Your task to perform on an android device: allow cookies in the chrome app Image 0: 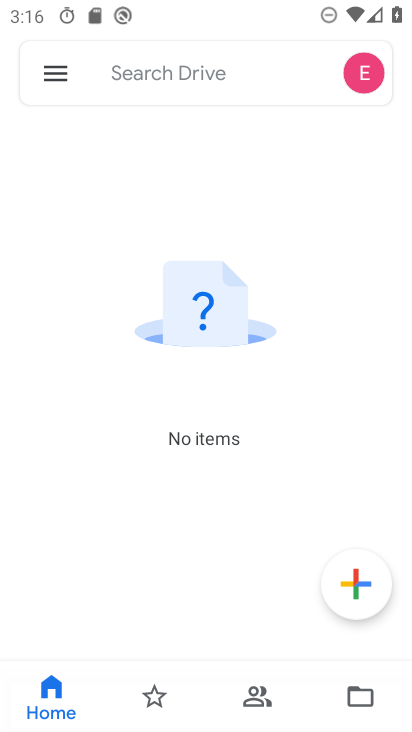
Step 0: press home button
Your task to perform on an android device: allow cookies in the chrome app Image 1: 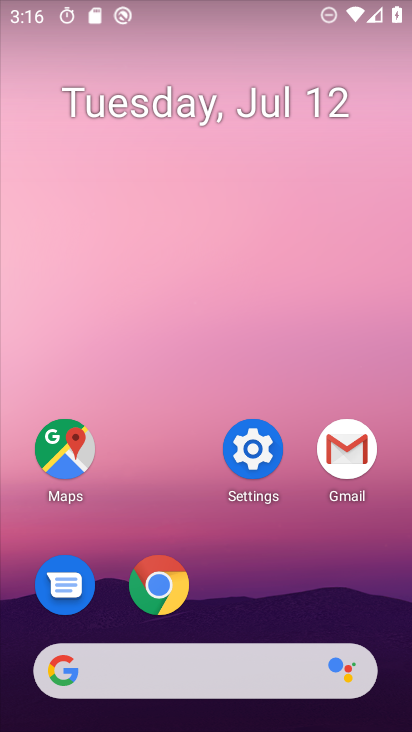
Step 1: click (143, 591)
Your task to perform on an android device: allow cookies in the chrome app Image 2: 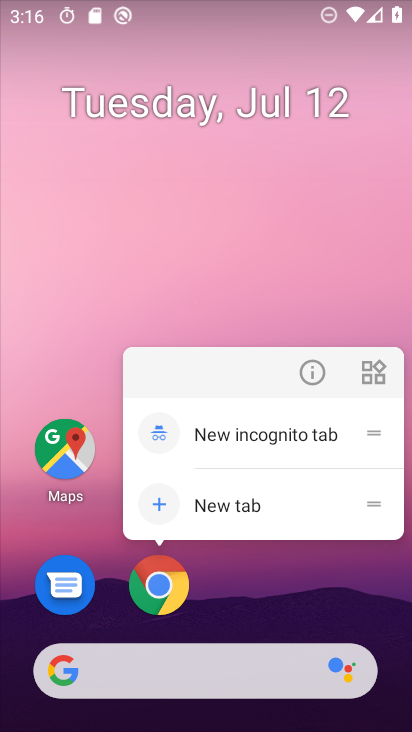
Step 2: click (160, 589)
Your task to perform on an android device: allow cookies in the chrome app Image 3: 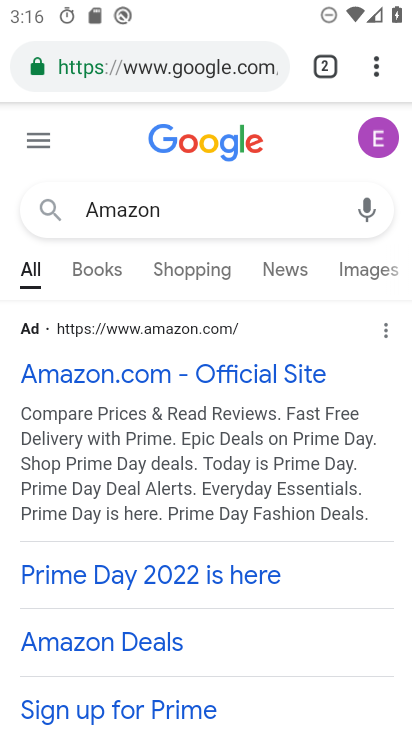
Step 3: click (375, 67)
Your task to perform on an android device: allow cookies in the chrome app Image 4: 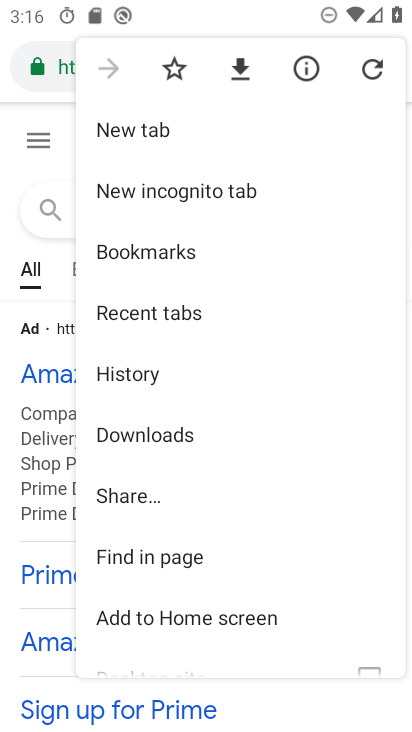
Step 4: drag from (276, 568) to (257, 276)
Your task to perform on an android device: allow cookies in the chrome app Image 5: 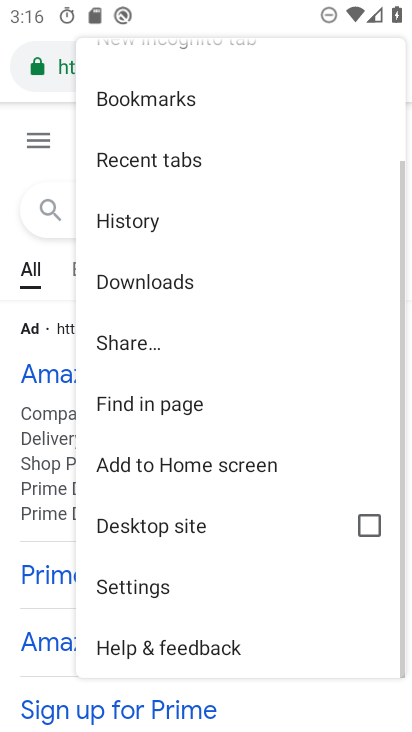
Step 5: click (145, 584)
Your task to perform on an android device: allow cookies in the chrome app Image 6: 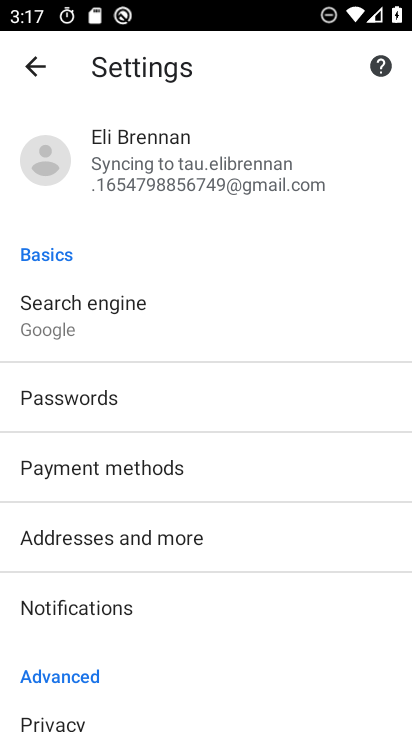
Step 6: drag from (269, 667) to (277, 266)
Your task to perform on an android device: allow cookies in the chrome app Image 7: 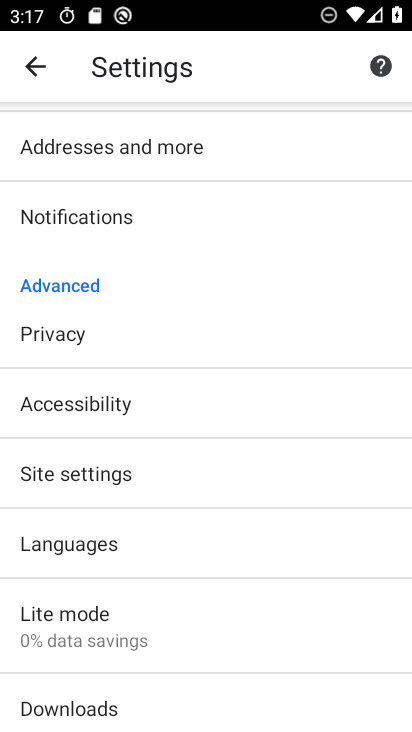
Step 7: click (66, 464)
Your task to perform on an android device: allow cookies in the chrome app Image 8: 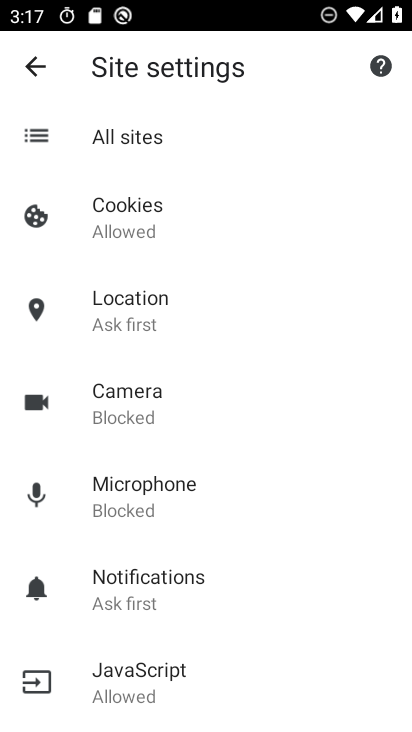
Step 8: click (114, 220)
Your task to perform on an android device: allow cookies in the chrome app Image 9: 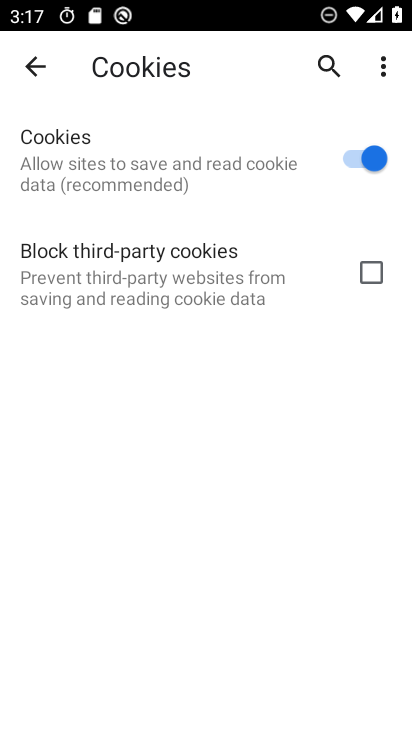
Step 9: task complete